Your task to perform on an android device: turn off javascript in the chrome app Image 0: 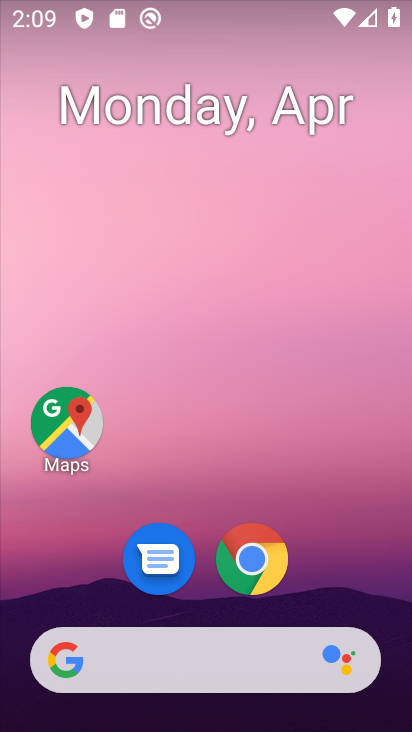
Step 0: click (252, 565)
Your task to perform on an android device: turn off javascript in the chrome app Image 1: 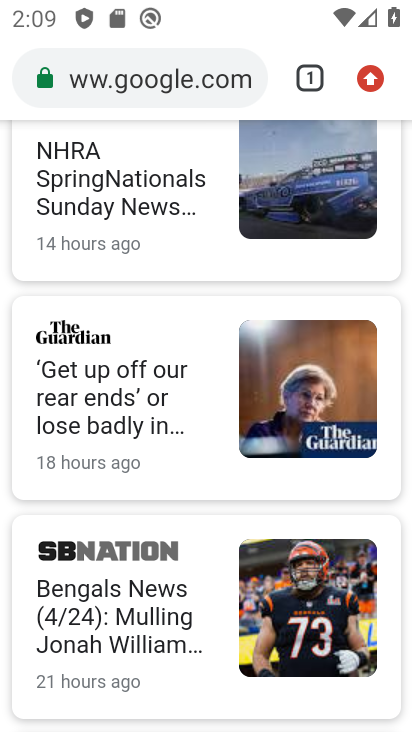
Step 1: drag from (372, 76) to (100, 621)
Your task to perform on an android device: turn off javascript in the chrome app Image 2: 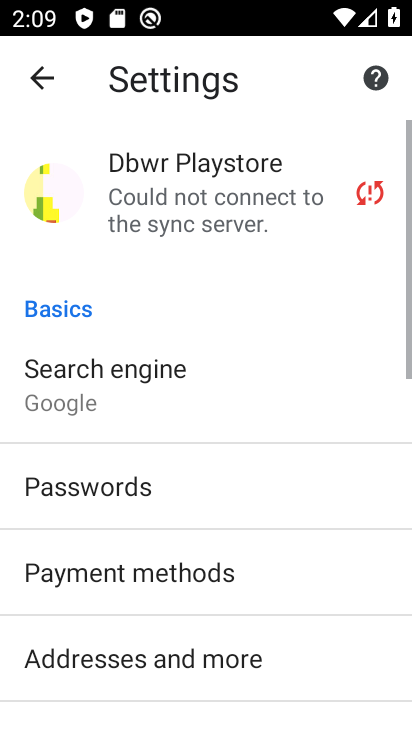
Step 2: drag from (149, 648) to (154, 192)
Your task to perform on an android device: turn off javascript in the chrome app Image 3: 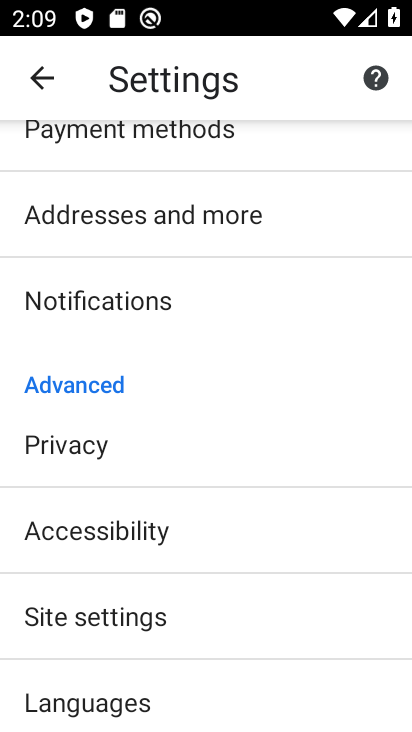
Step 3: click (79, 616)
Your task to perform on an android device: turn off javascript in the chrome app Image 4: 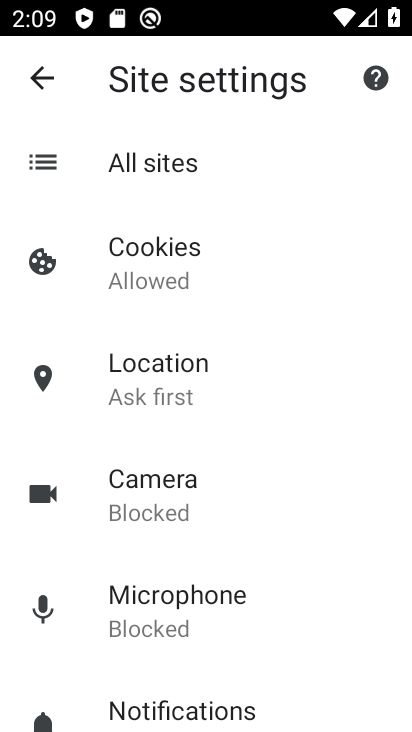
Step 4: drag from (176, 662) to (167, 219)
Your task to perform on an android device: turn off javascript in the chrome app Image 5: 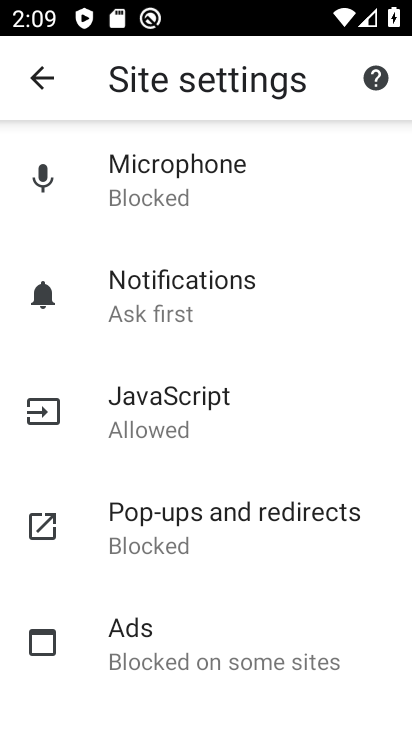
Step 5: click (160, 420)
Your task to perform on an android device: turn off javascript in the chrome app Image 6: 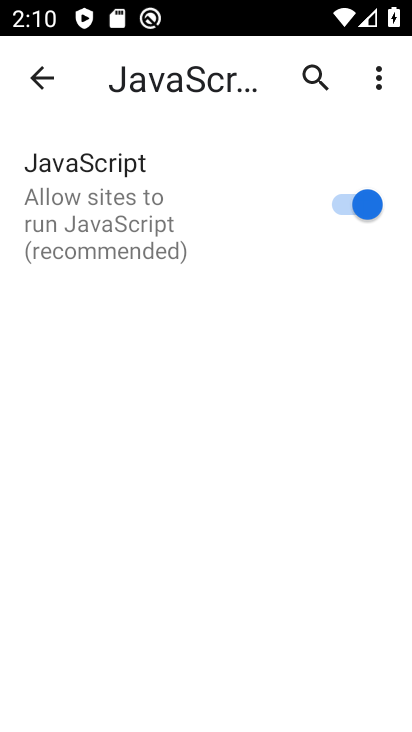
Step 6: click (339, 207)
Your task to perform on an android device: turn off javascript in the chrome app Image 7: 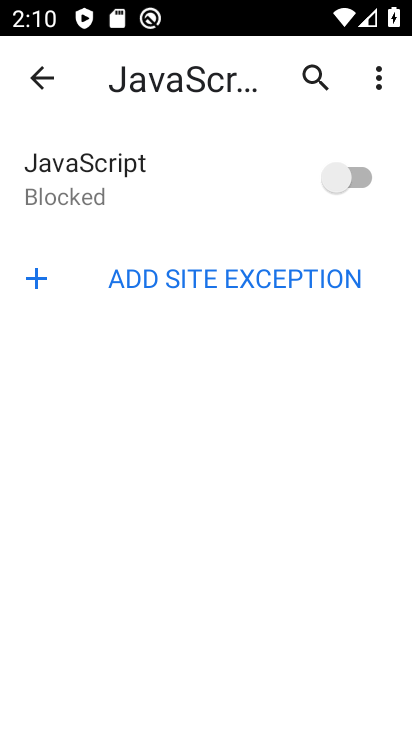
Step 7: task complete